Your task to perform on an android device: Open the stopwatch Image 0: 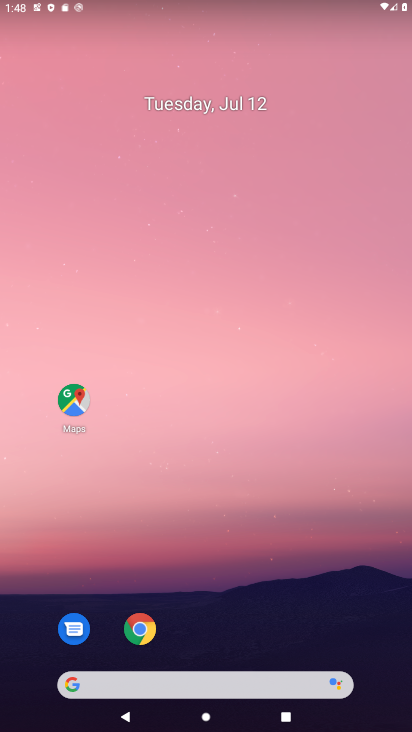
Step 0: drag from (290, 637) to (258, 94)
Your task to perform on an android device: Open the stopwatch Image 1: 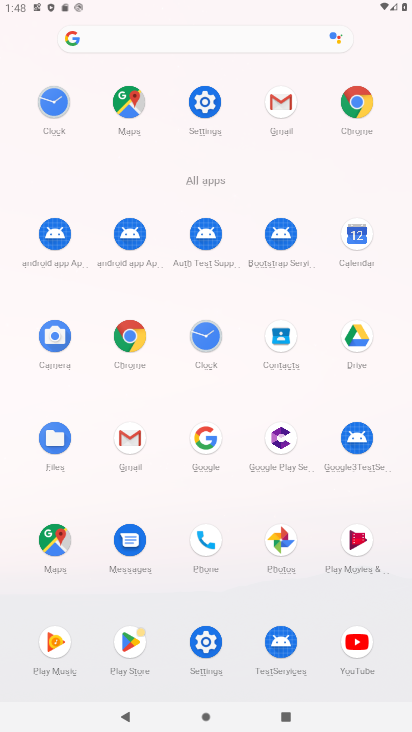
Step 1: click (213, 337)
Your task to perform on an android device: Open the stopwatch Image 2: 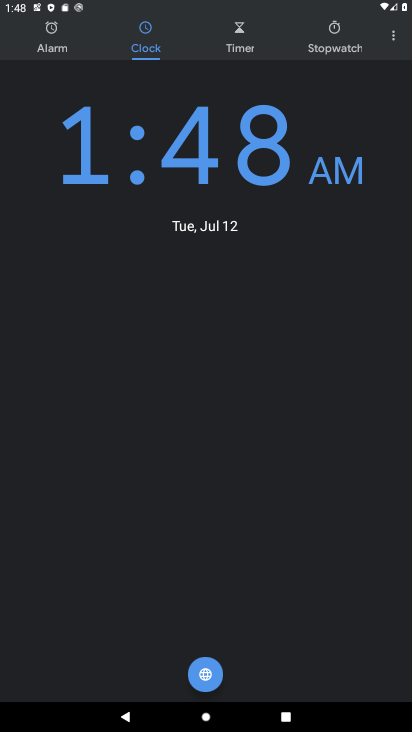
Step 2: click (333, 33)
Your task to perform on an android device: Open the stopwatch Image 3: 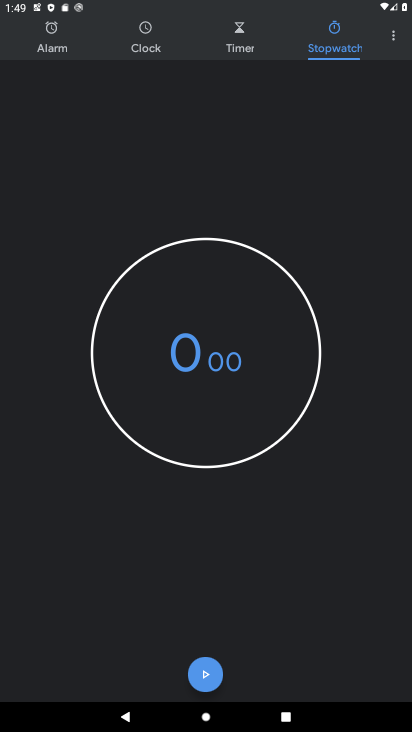
Step 3: task complete